Your task to perform on an android device: Add "razer naga" to the cart on costco.com Image 0: 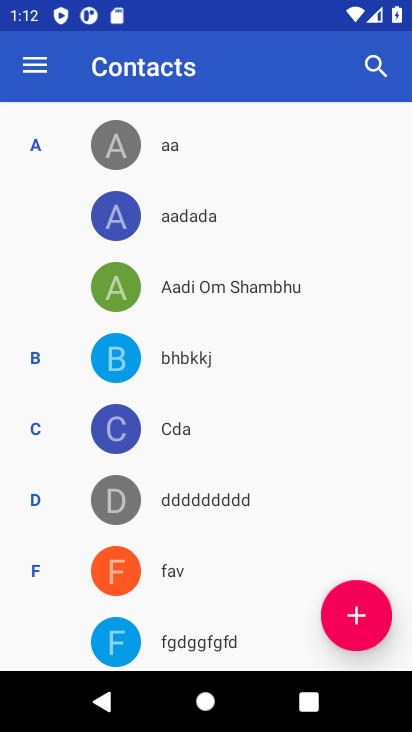
Step 0: press home button
Your task to perform on an android device: Add "razer naga" to the cart on costco.com Image 1: 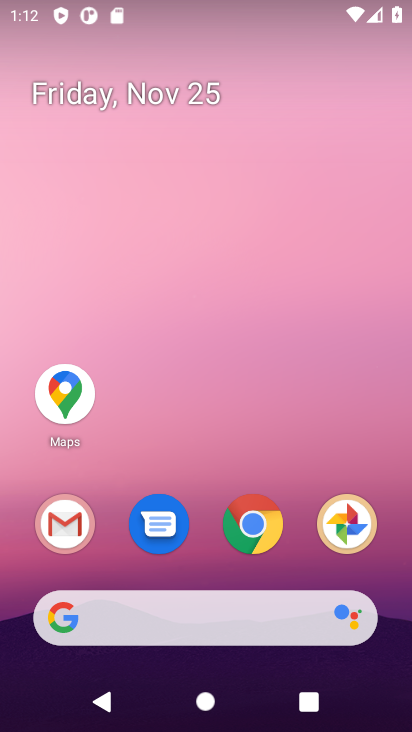
Step 1: click (257, 527)
Your task to perform on an android device: Add "razer naga" to the cart on costco.com Image 2: 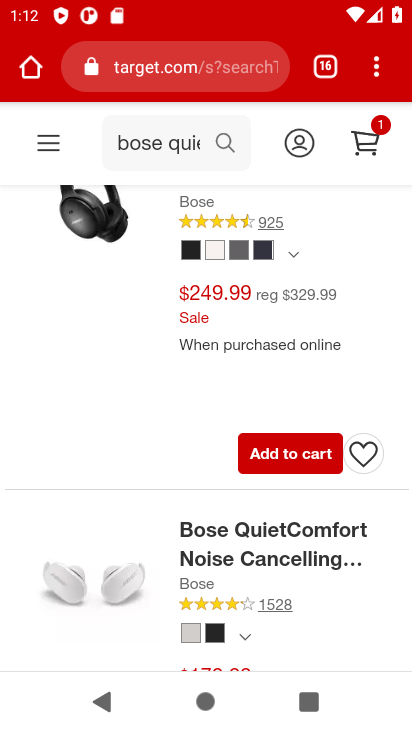
Step 2: click (171, 68)
Your task to perform on an android device: Add "razer naga" to the cart on costco.com Image 3: 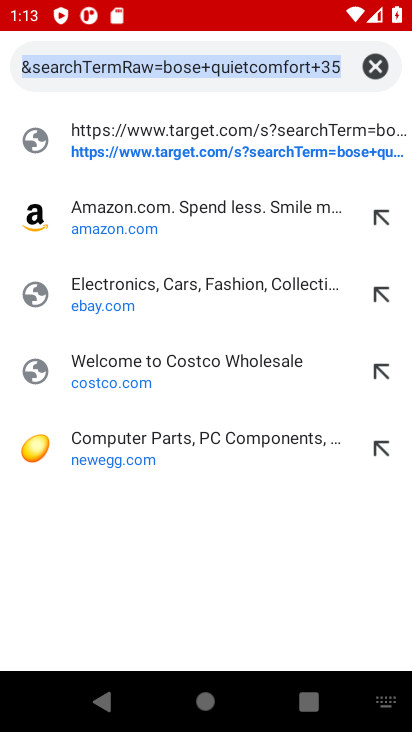
Step 3: click (105, 374)
Your task to perform on an android device: Add "razer naga" to the cart on costco.com Image 4: 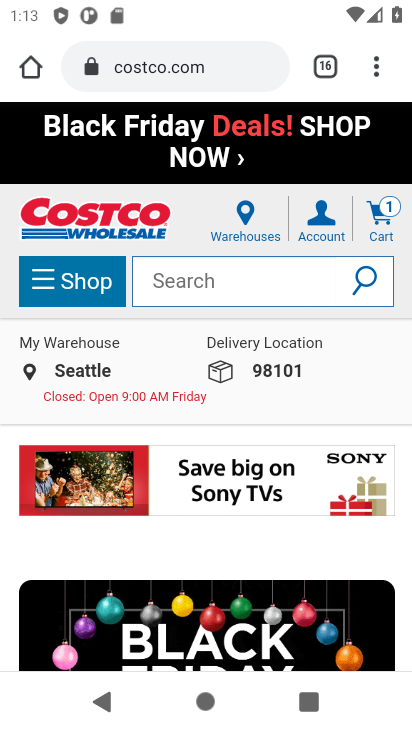
Step 4: click (177, 278)
Your task to perform on an android device: Add "razer naga" to the cart on costco.com Image 5: 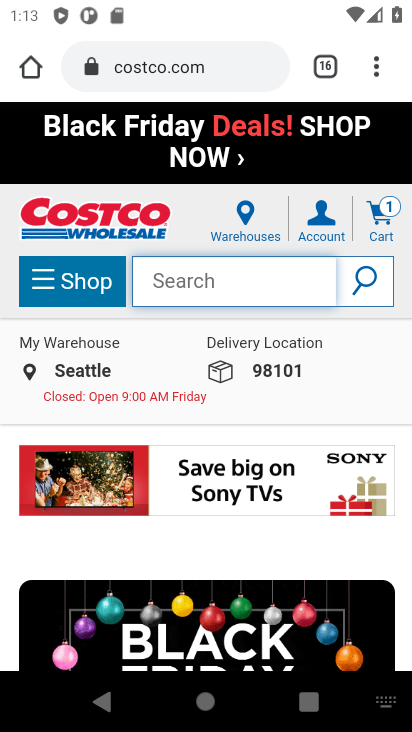
Step 5: type "razer naga"
Your task to perform on an android device: Add "razer naga" to the cart on costco.com Image 6: 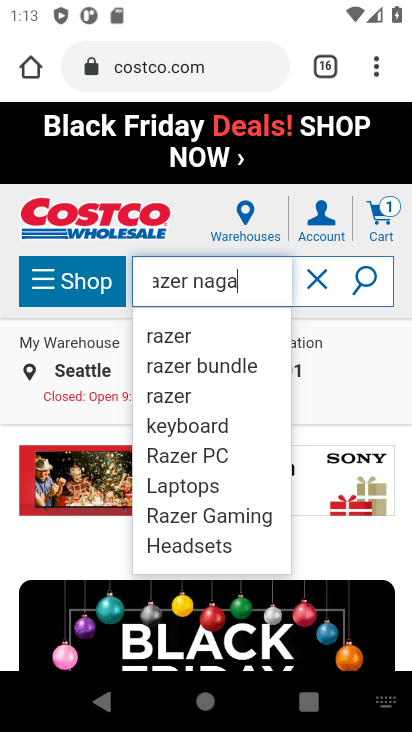
Step 6: click (361, 280)
Your task to perform on an android device: Add "razer naga" to the cart on costco.com Image 7: 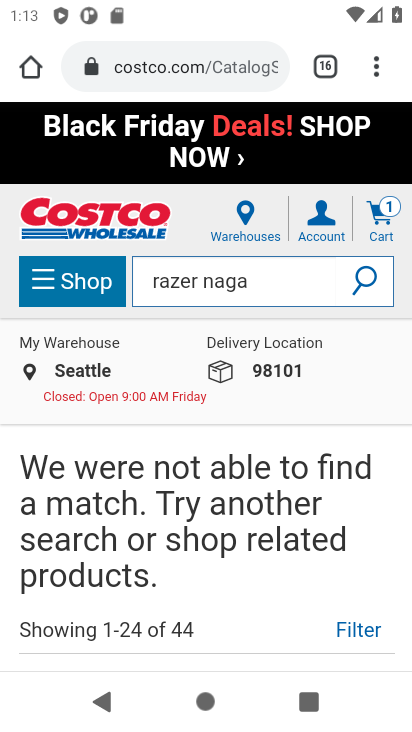
Step 7: task complete